Your task to perform on an android device: Open the calendar and show me this week's events? Image 0: 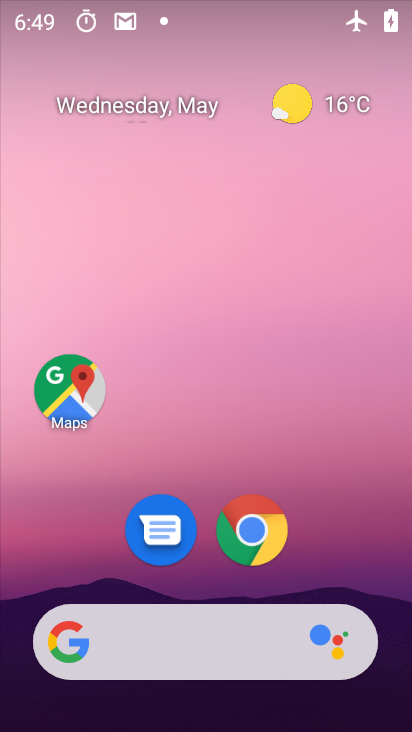
Step 0: drag from (195, 571) to (211, 142)
Your task to perform on an android device: Open the calendar and show me this week's events? Image 1: 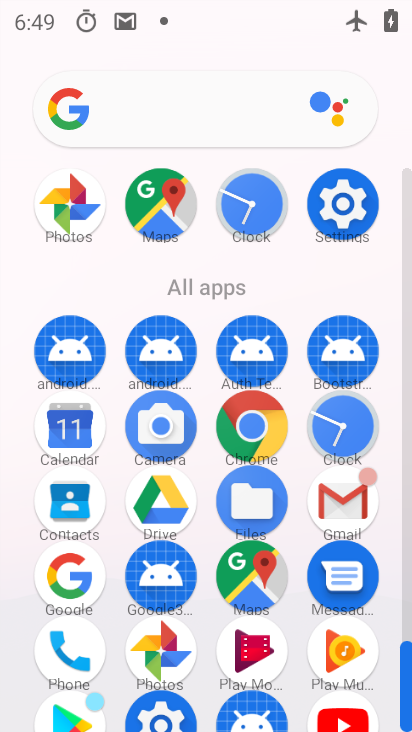
Step 1: click (91, 432)
Your task to perform on an android device: Open the calendar and show me this week's events? Image 2: 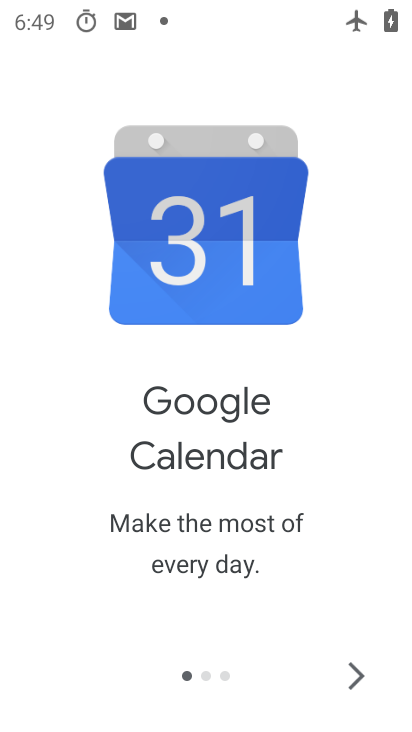
Step 2: click (360, 675)
Your task to perform on an android device: Open the calendar and show me this week's events? Image 3: 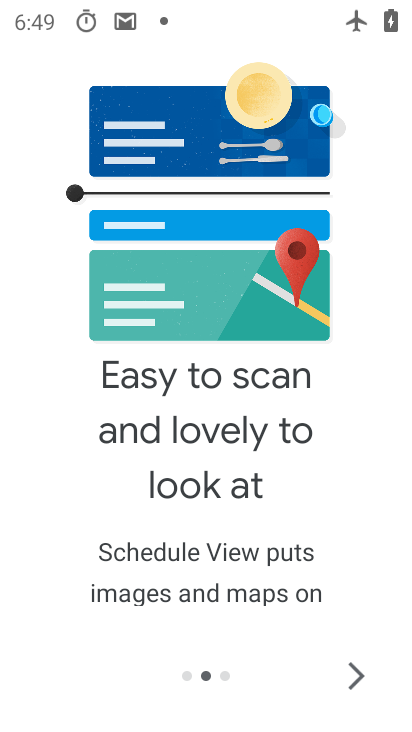
Step 3: click (360, 675)
Your task to perform on an android device: Open the calendar and show me this week's events? Image 4: 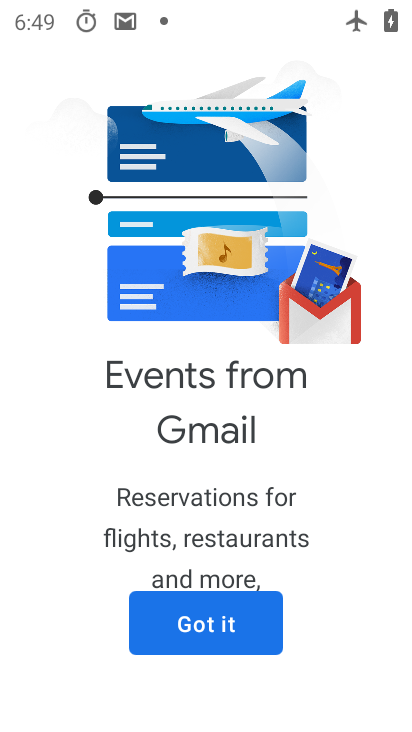
Step 4: click (360, 675)
Your task to perform on an android device: Open the calendar and show me this week's events? Image 5: 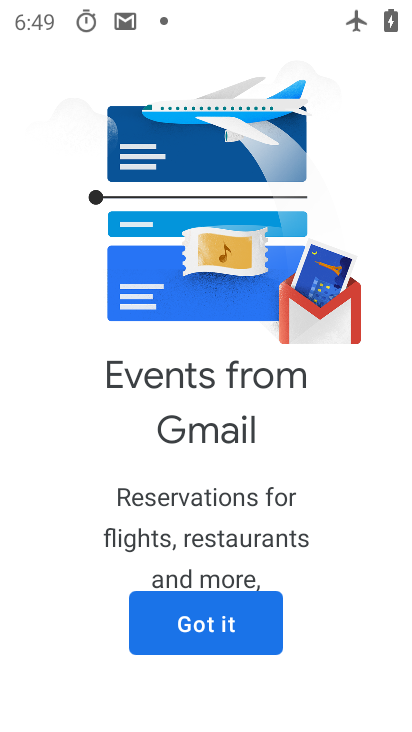
Step 5: click (256, 636)
Your task to perform on an android device: Open the calendar and show me this week's events? Image 6: 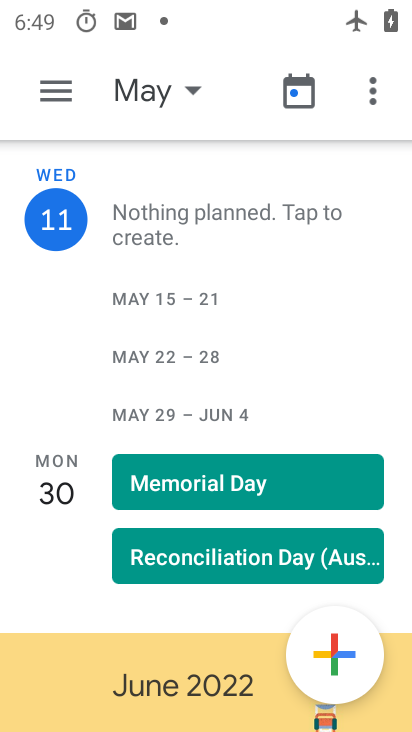
Step 6: click (157, 97)
Your task to perform on an android device: Open the calendar and show me this week's events? Image 7: 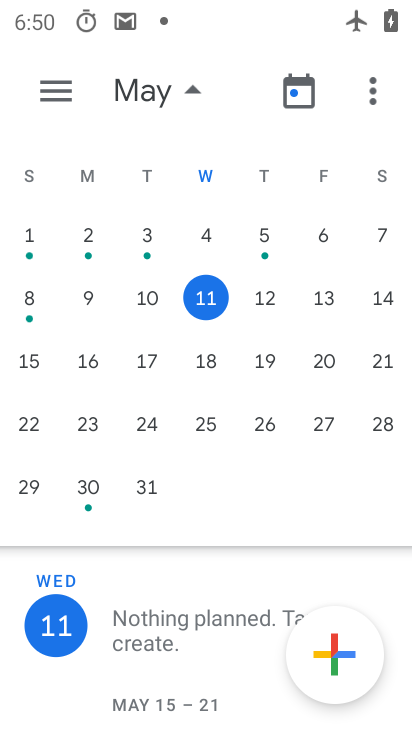
Step 7: click (260, 303)
Your task to perform on an android device: Open the calendar and show me this week's events? Image 8: 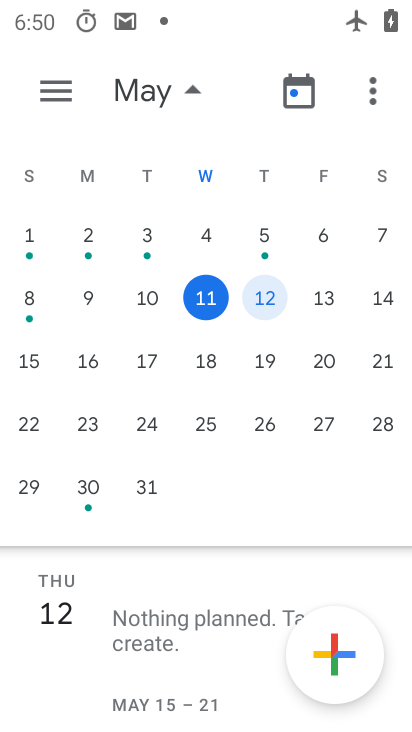
Step 8: click (337, 294)
Your task to perform on an android device: Open the calendar and show me this week's events? Image 9: 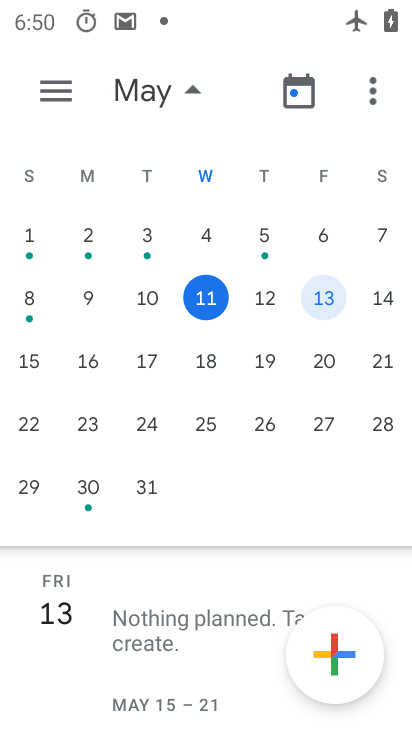
Step 9: click (374, 298)
Your task to perform on an android device: Open the calendar and show me this week's events? Image 10: 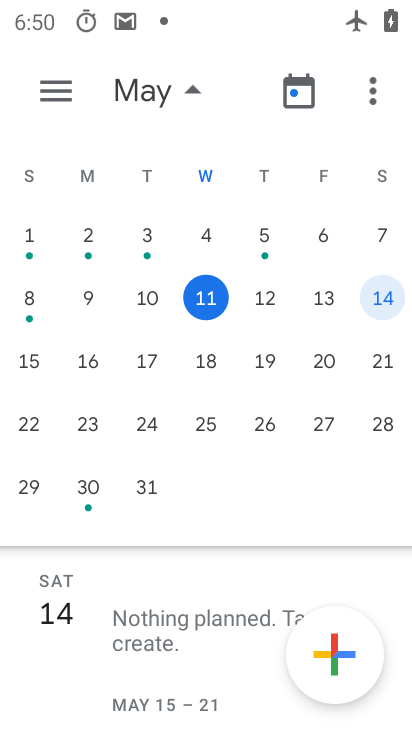
Step 10: task complete